Your task to perform on an android device: Add "dell alienware" to the cart on amazon.com Image 0: 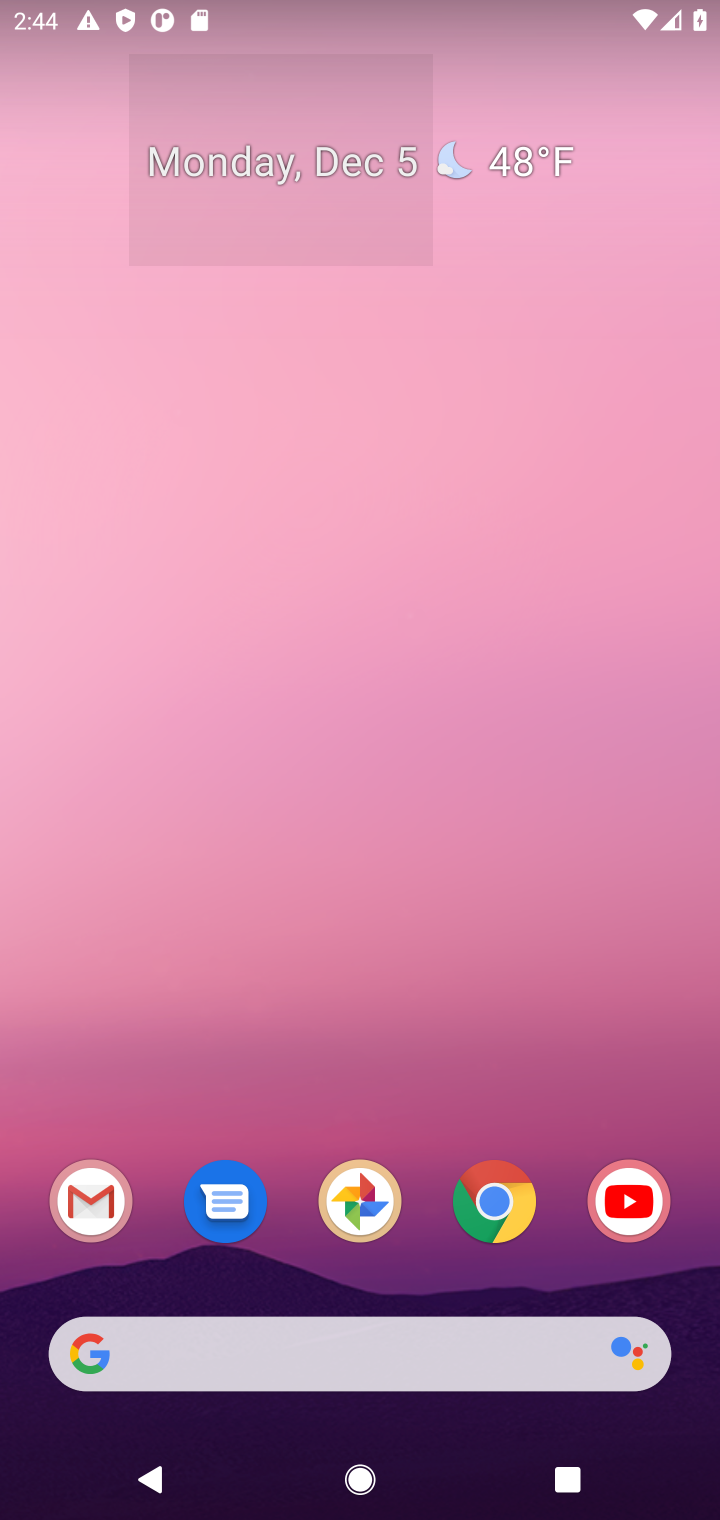
Step 0: click (492, 1194)
Your task to perform on an android device: Add "dell alienware" to the cart on amazon.com Image 1: 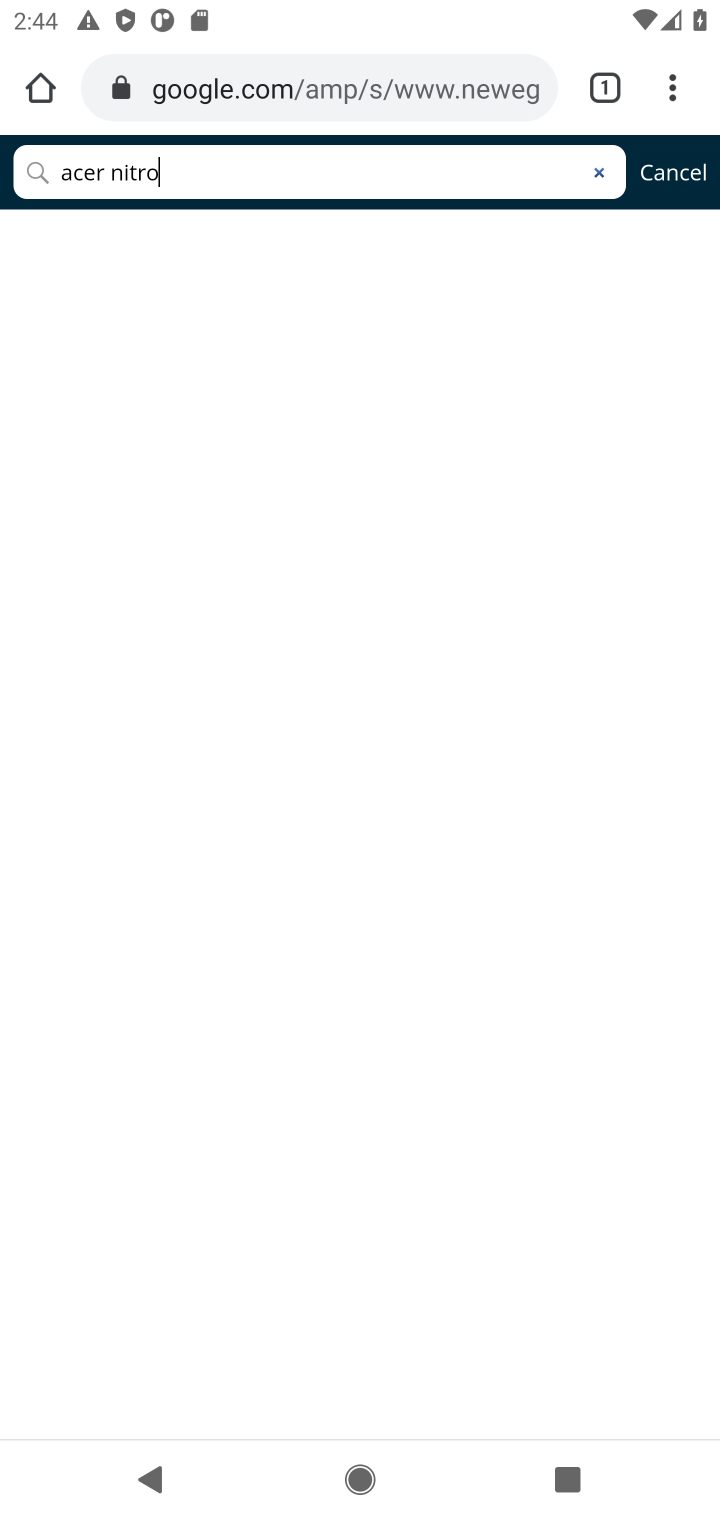
Step 1: click (373, 80)
Your task to perform on an android device: Add "dell alienware" to the cart on amazon.com Image 2: 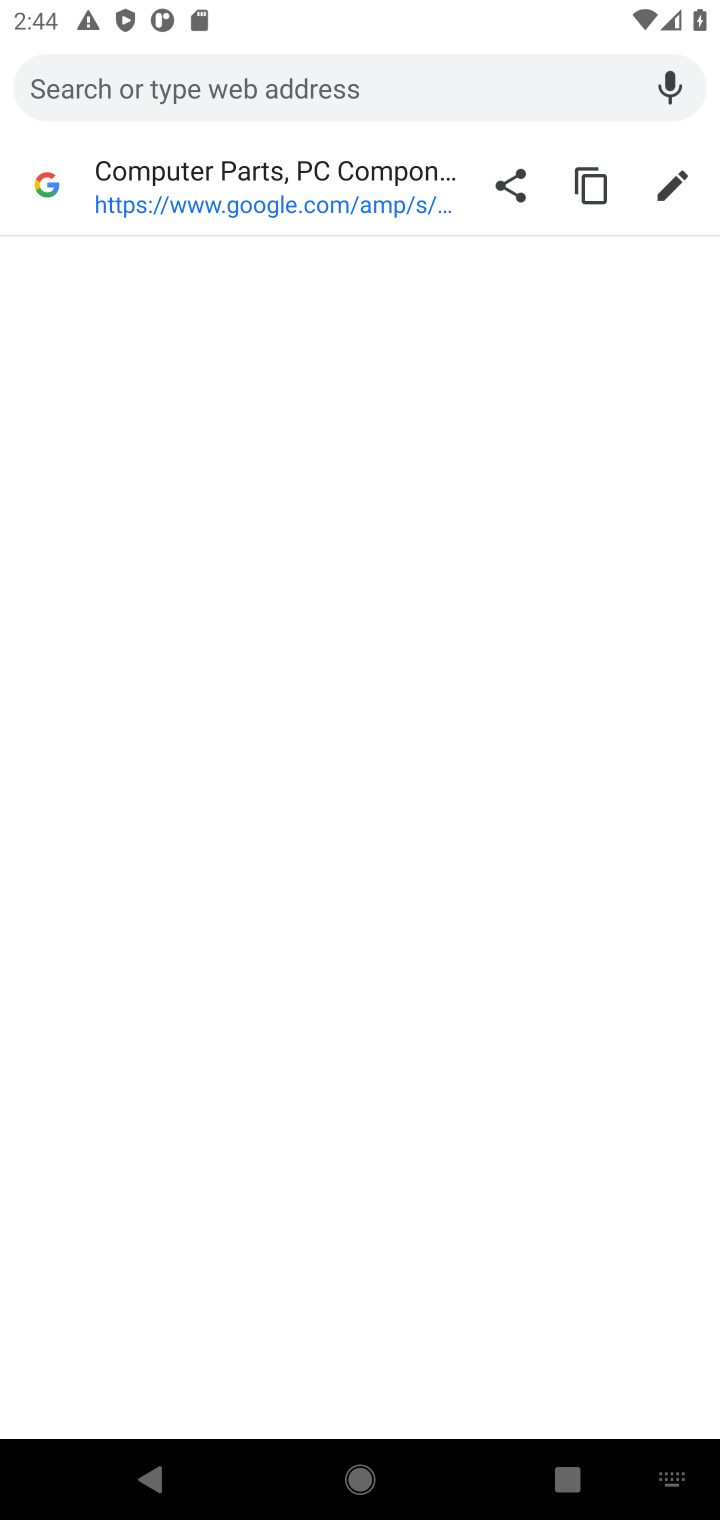
Step 2: type "amazon.com"
Your task to perform on an android device: Add "dell alienware" to the cart on amazon.com Image 3: 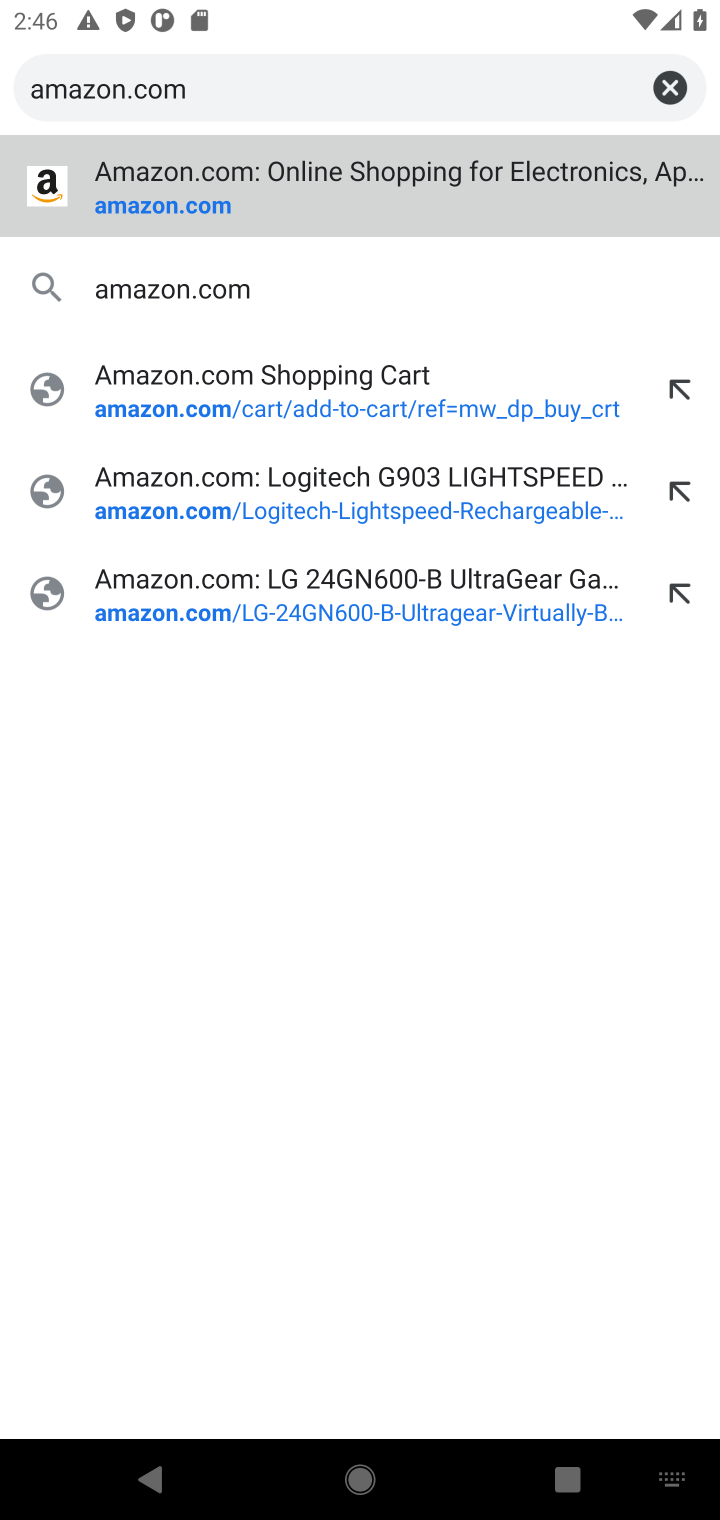
Step 3: click (329, 181)
Your task to perform on an android device: Add "dell alienware" to the cart on amazon.com Image 4: 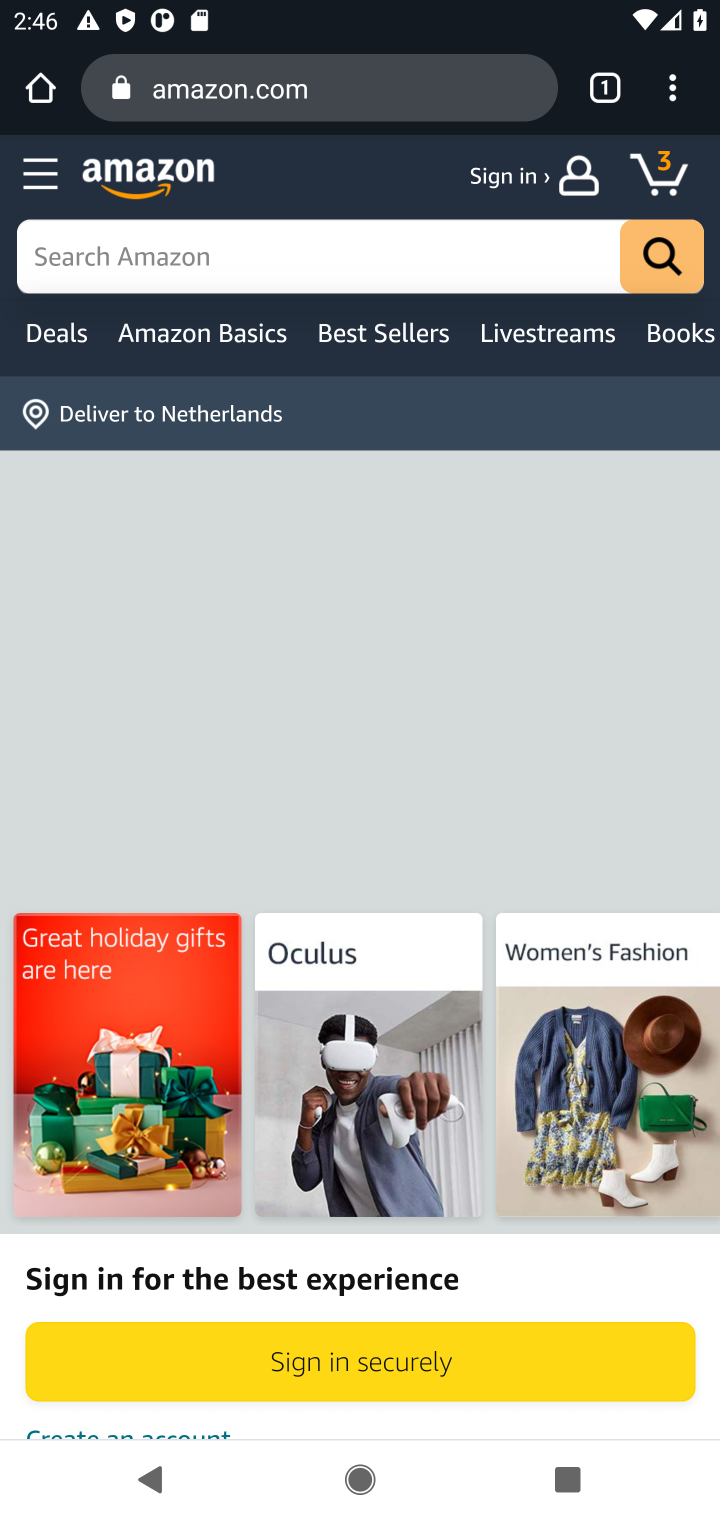
Step 4: click (445, 271)
Your task to perform on an android device: Add "dell alienware" to the cart on amazon.com Image 5: 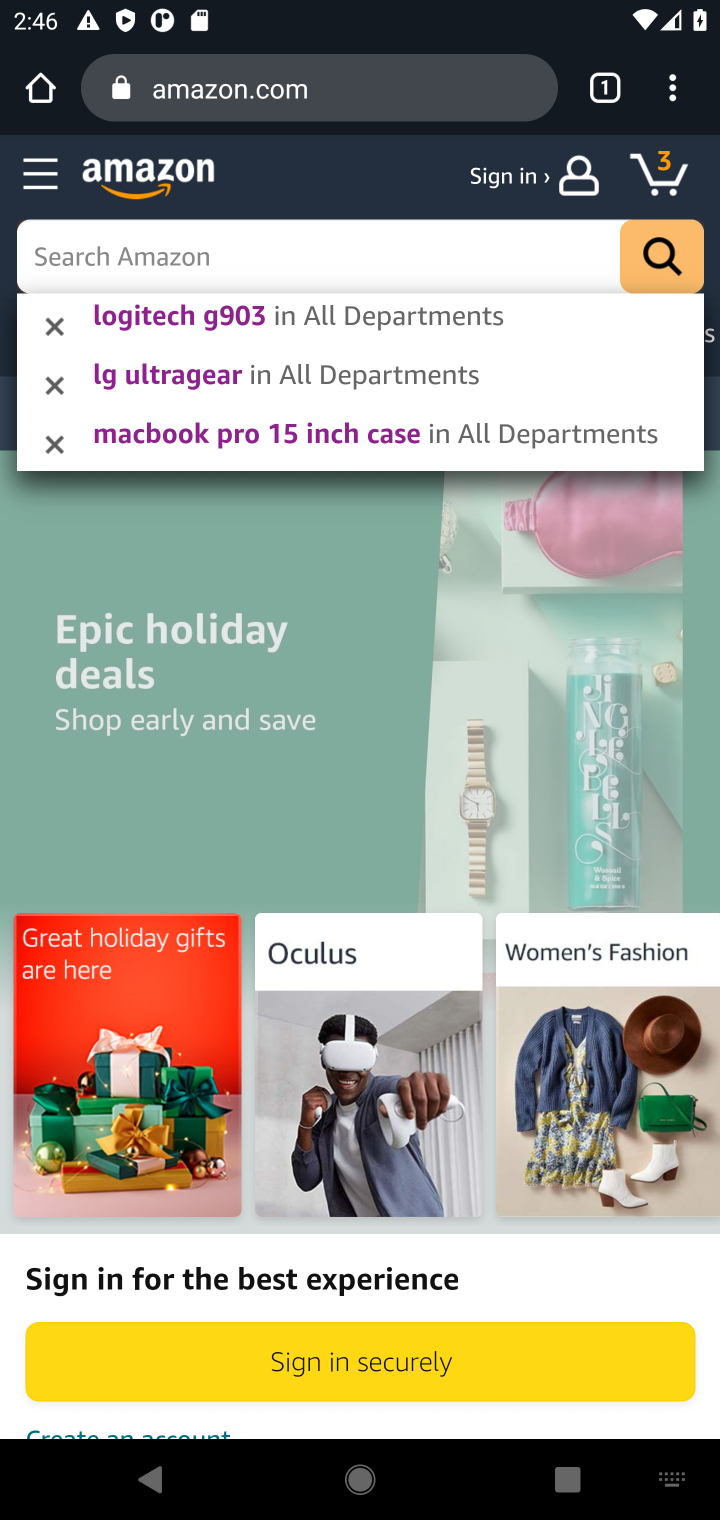
Step 5: type "dell alienware"
Your task to perform on an android device: Add "dell alienware" to the cart on amazon.com Image 6: 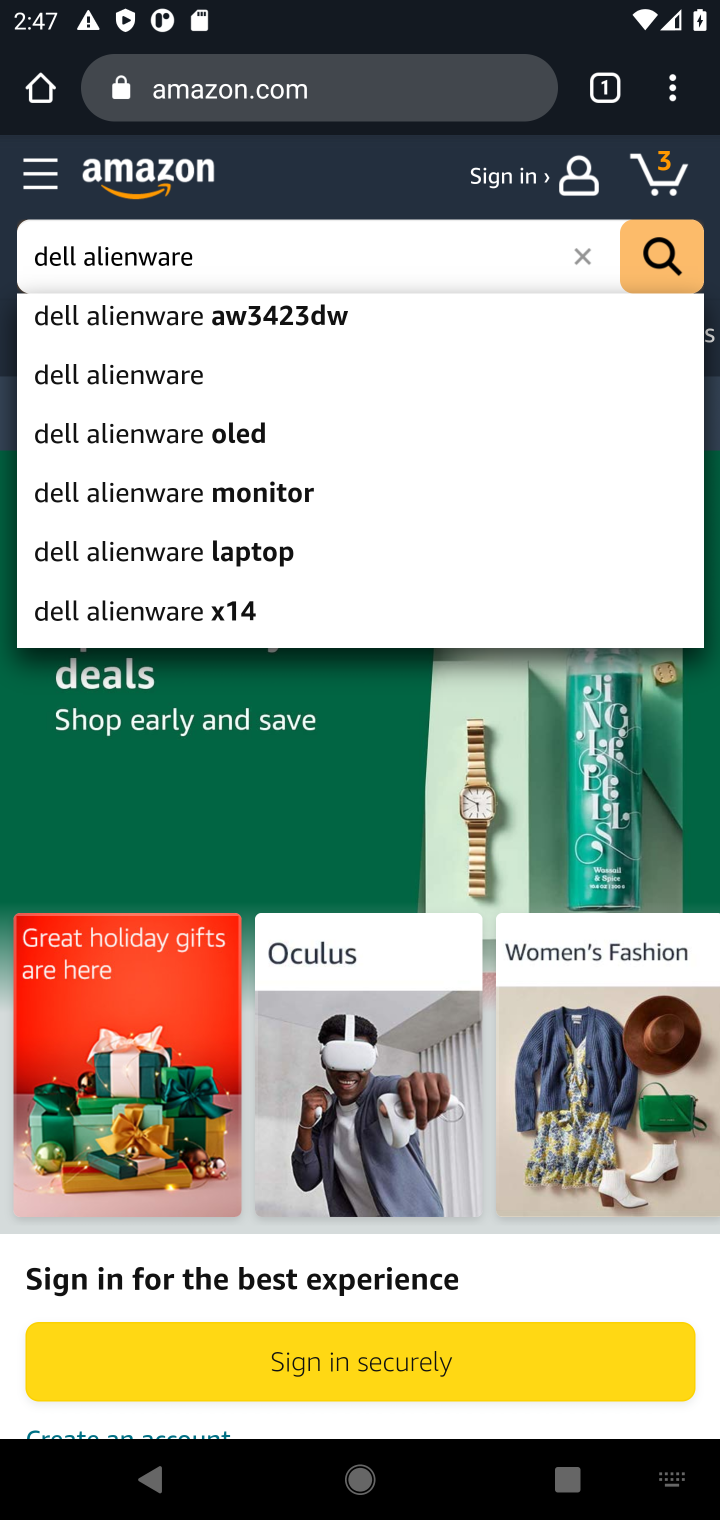
Step 6: click (240, 320)
Your task to perform on an android device: Add "dell alienware" to the cart on amazon.com Image 7: 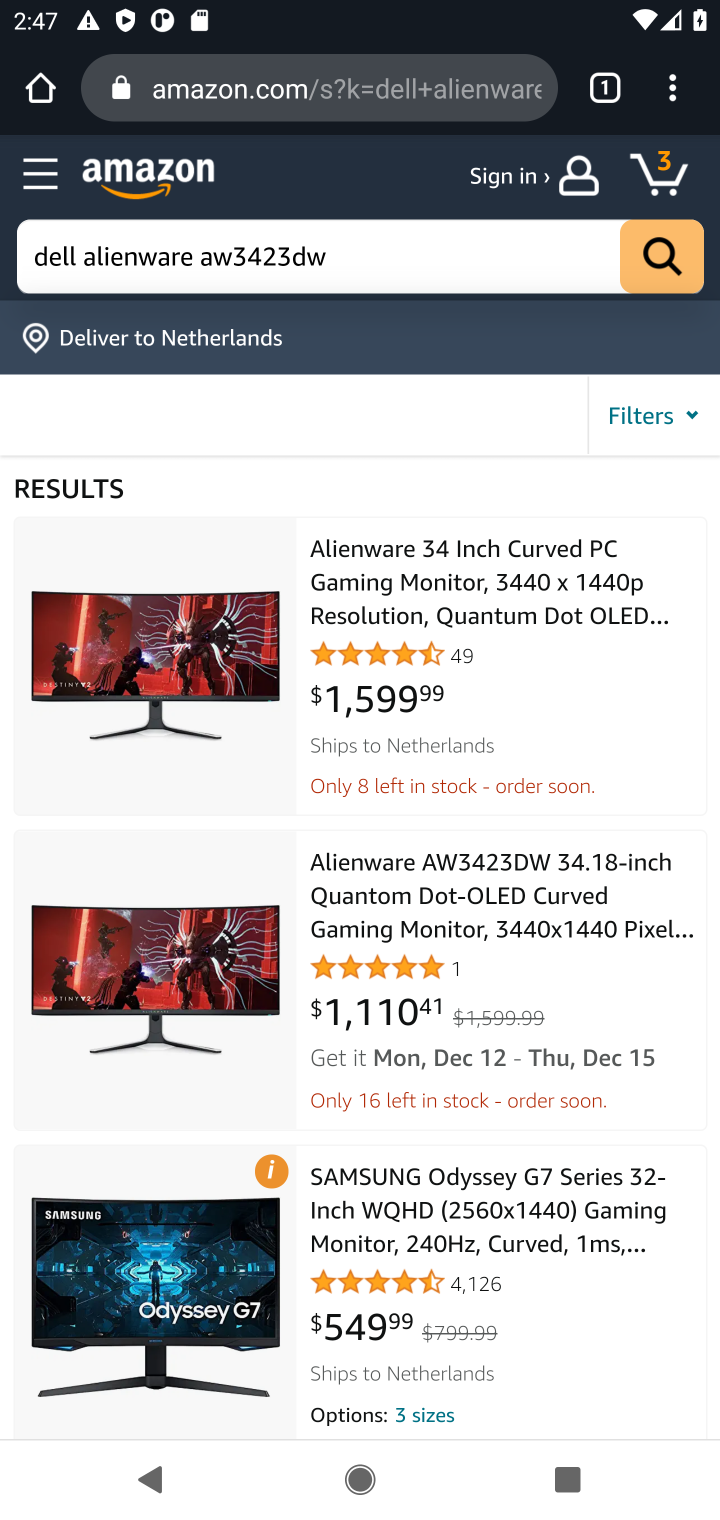
Step 7: click (219, 644)
Your task to perform on an android device: Add "dell alienware" to the cart on amazon.com Image 8: 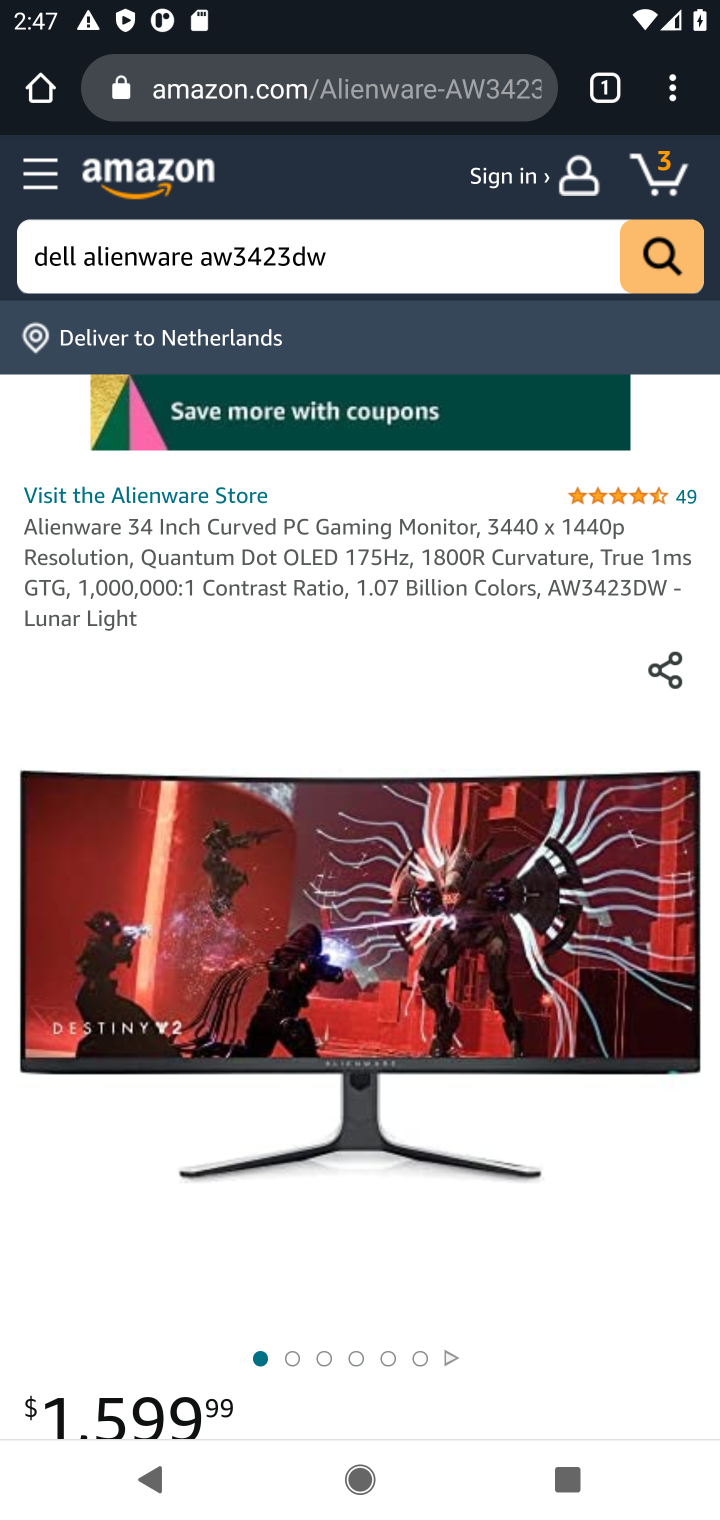
Step 8: drag from (468, 1316) to (438, 296)
Your task to perform on an android device: Add "dell alienware" to the cart on amazon.com Image 9: 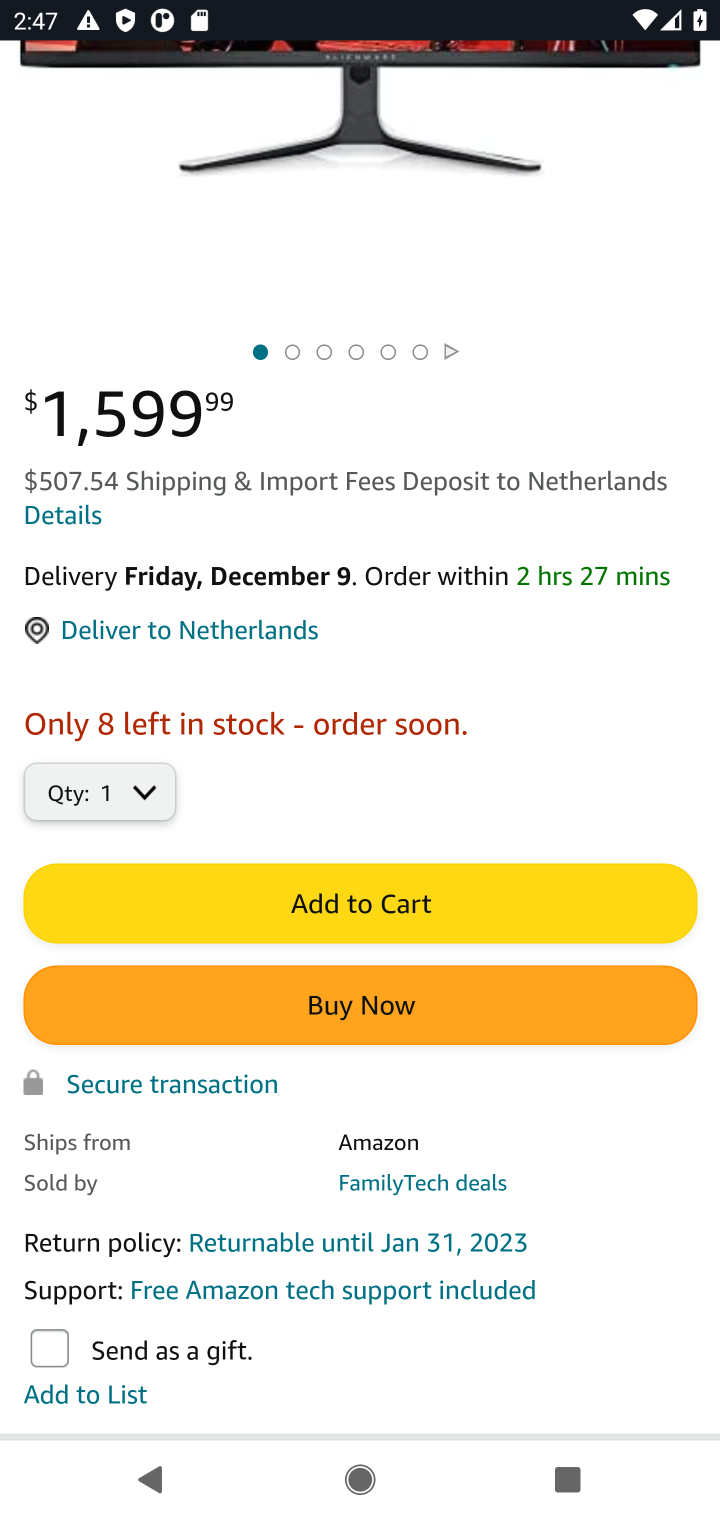
Step 9: click (360, 919)
Your task to perform on an android device: Add "dell alienware" to the cart on amazon.com Image 10: 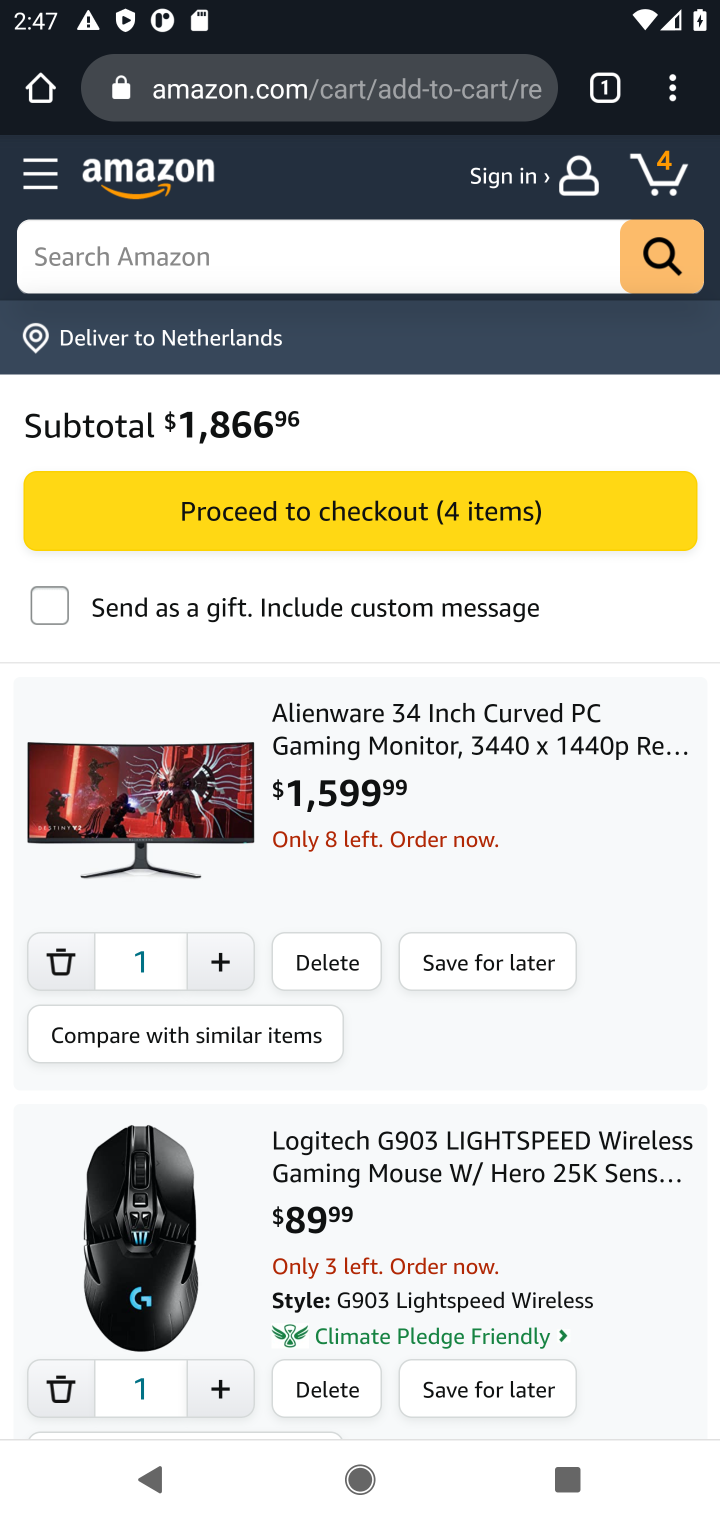
Step 10: task complete